Your task to perform on an android device: turn off airplane mode Image 0: 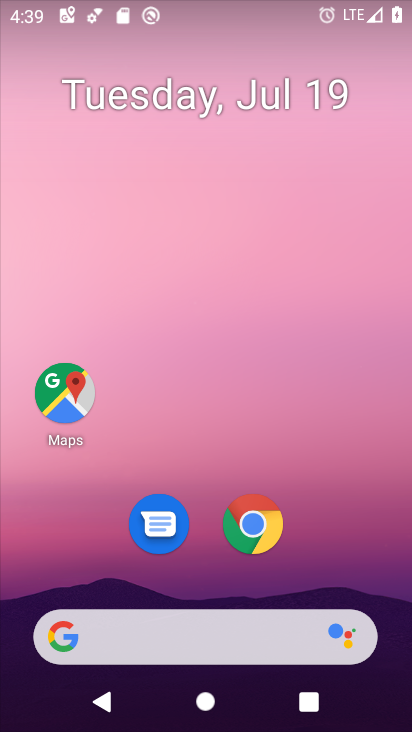
Step 0: drag from (333, 549) to (345, 45)
Your task to perform on an android device: turn off airplane mode Image 1: 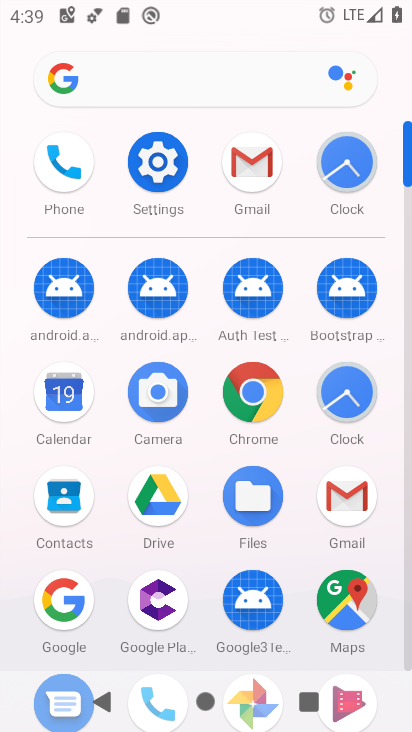
Step 1: click (169, 170)
Your task to perform on an android device: turn off airplane mode Image 2: 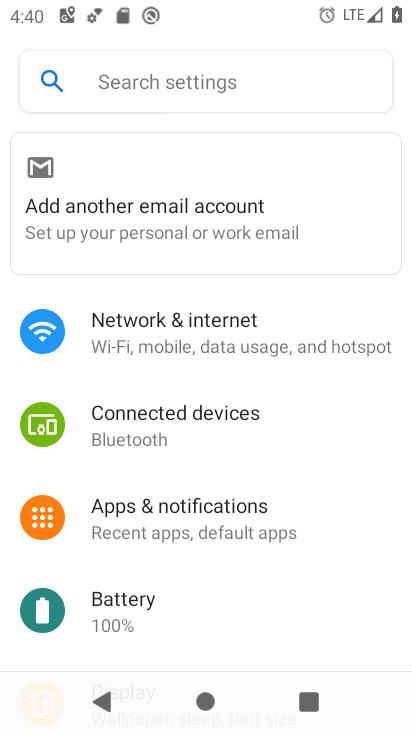
Step 2: drag from (220, 560) to (267, 233)
Your task to perform on an android device: turn off airplane mode Image 3: 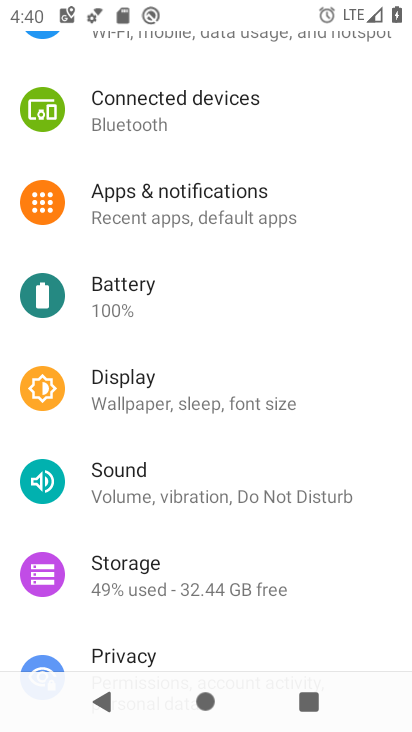
Step 3: drag from (272, 179) to (259, 510)
Your task to perform on an android device: turn off airplane mode Image 4: 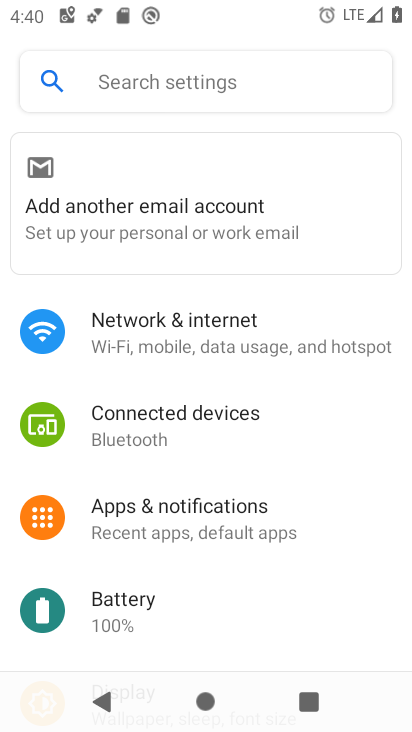
Step 4: click (263, 338)
Your task to perform on an android device: turn off airplane mode Image 5: 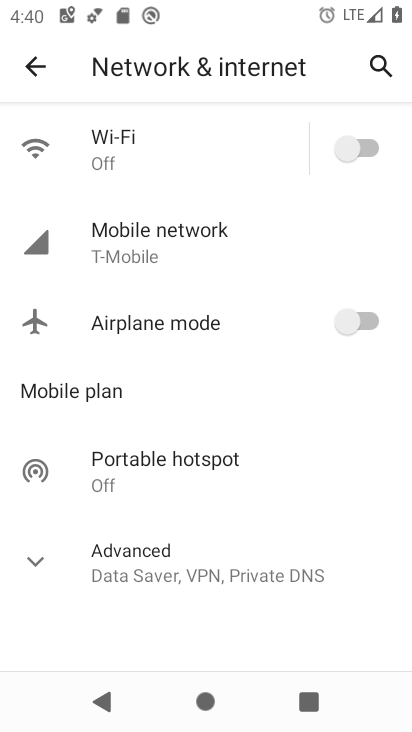
Step 5: task complete